Your task to perform on an android device: change notifications settings Image 0: 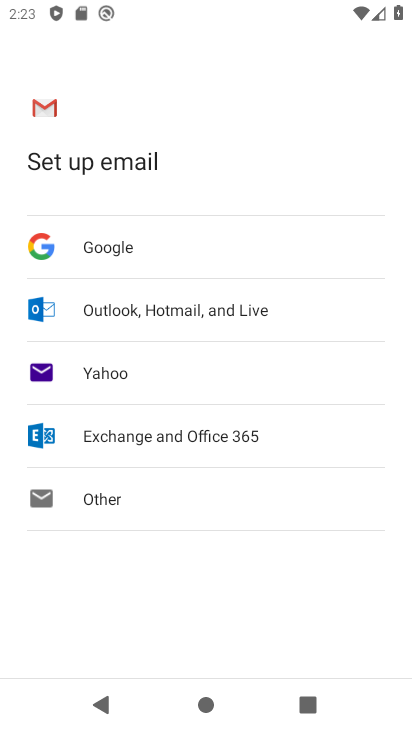
Step 0: press home button
Your task to perform on an android device: change notifications settings Image 1: 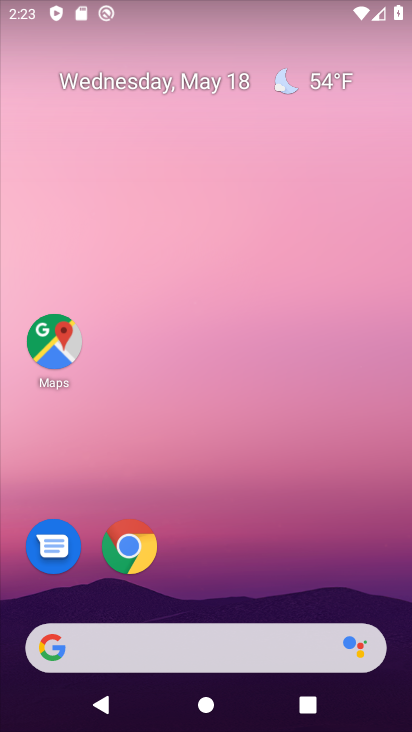
Step 1: drag from (347, 568) to (277, 41)
Your task to perform on an android device: change notifications settings Image 2: 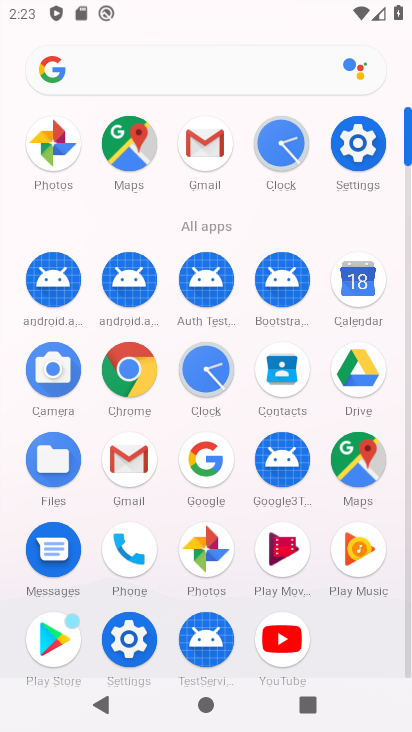
Step 2: click (347, 183)
Your task to perform on an android device: change notifications settings Image 3: 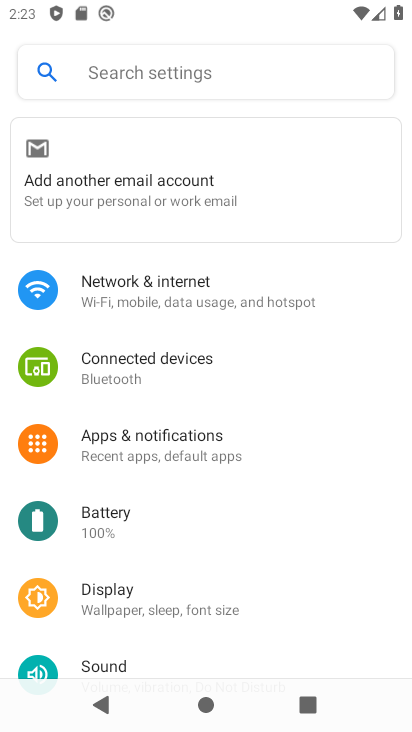
Step 3: click (152, 436)
Your task to perform on an android device: change notifications settings Image 4: 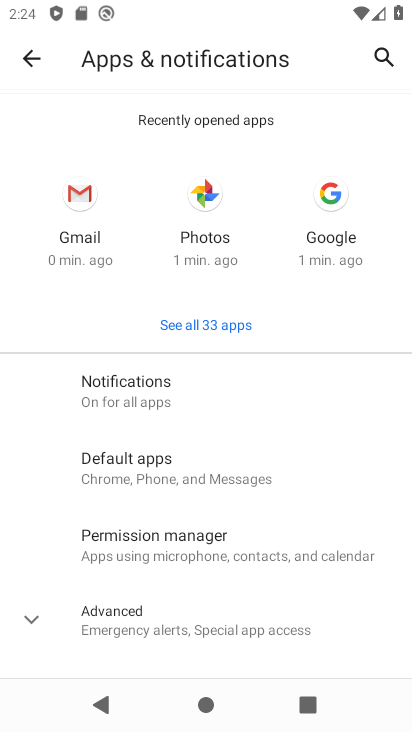
Step 4: click (156, 392)
Your task to perform on an android device: change notifications settings Image 5: 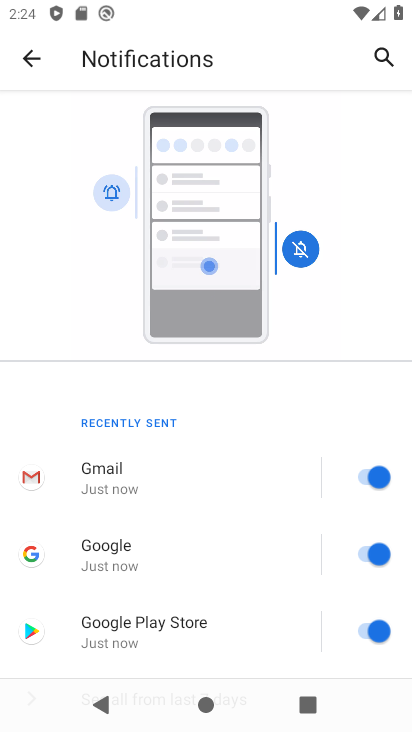
Step 5: drag from (188, 630) to (170, 100)
Your task to perform on an android device: change notifications settings Image 6: 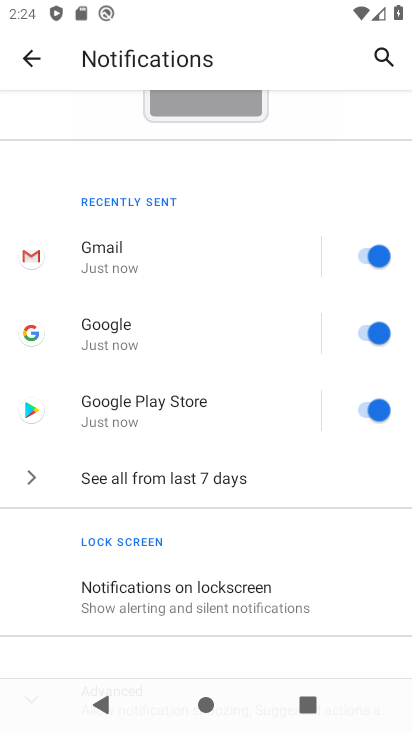
Step 6: click (211, 608)
Your task to perform on an android device: change notifications settings Image 7: 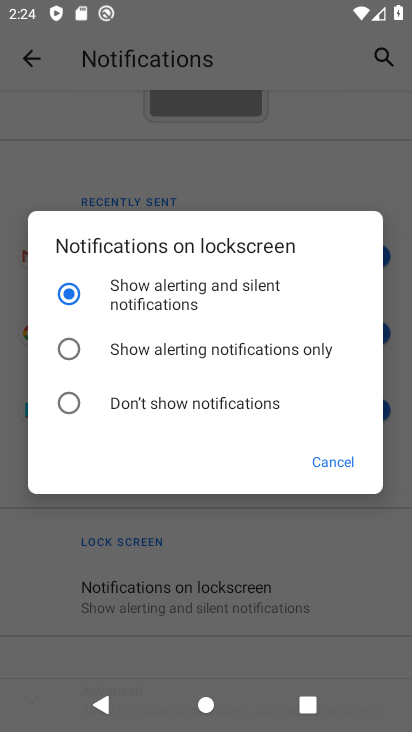
Step 7: click (240, 565)
Your task to perform on an android device: change notifications settings Image 8: 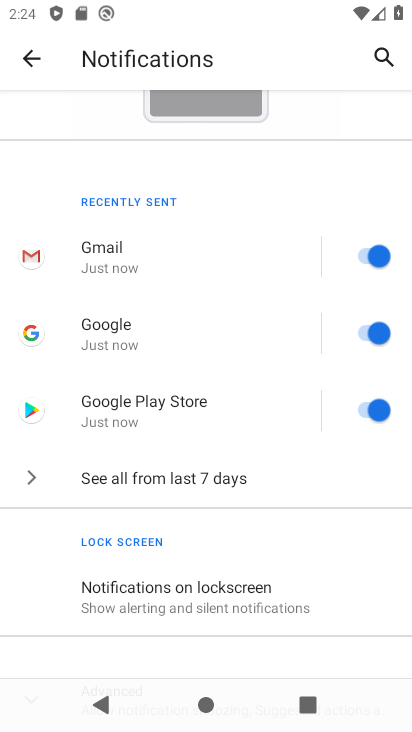
Step 8: drag from (240, 565) to (214, 233)
Your task to perform on an android device: change notifications settings Image 9: 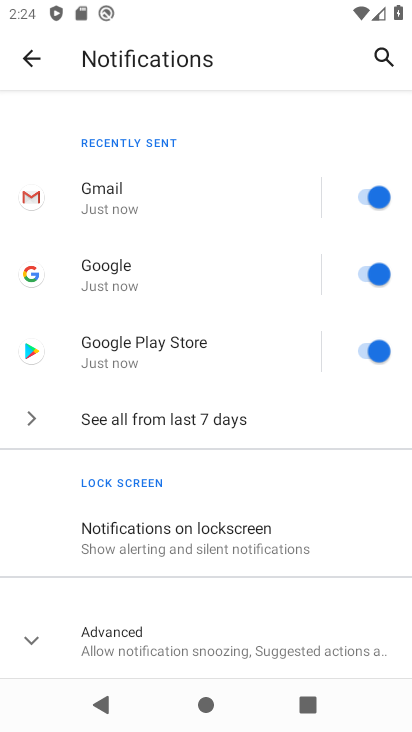
Step 9: click (143, 639)
Your task to perform on an android device: change notifications settings Image 10: 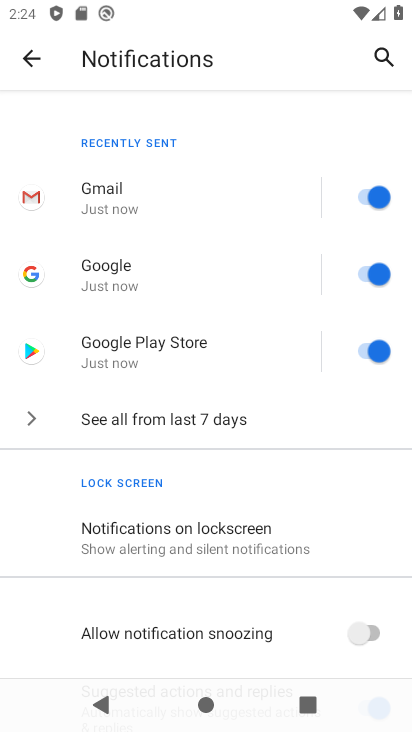
Step 10: click (365, 635)
Your task to perform on an android device: change notifications settings Image 11: 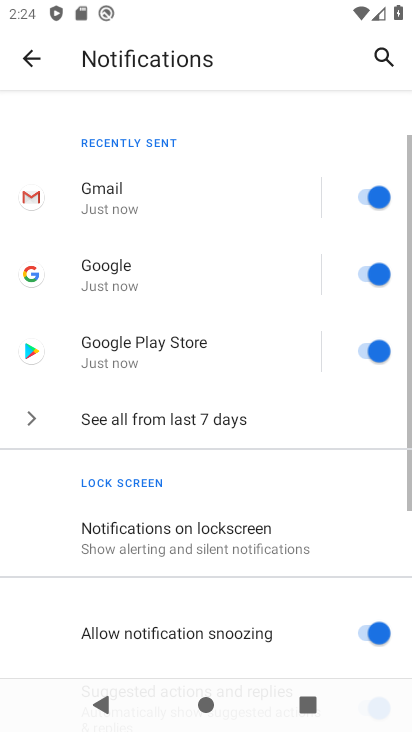
Step 11: drag from (281, 624) to (279, 263)
Your task to perform on an android device: change notifications settings Image 12: 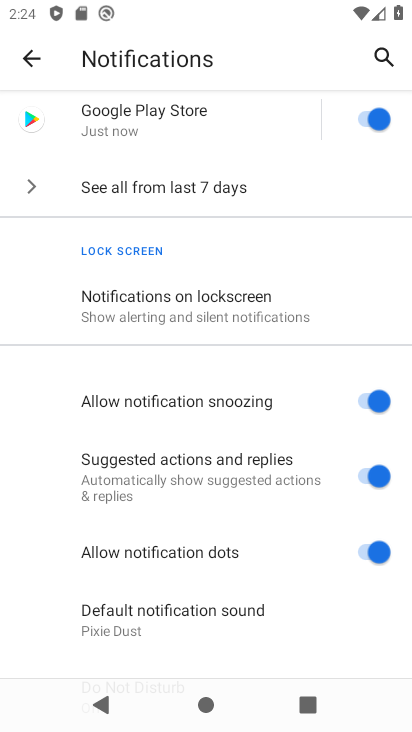
Step 12: click (327, 471)
Your task to perform on an android device: change notifications settings Image 13: 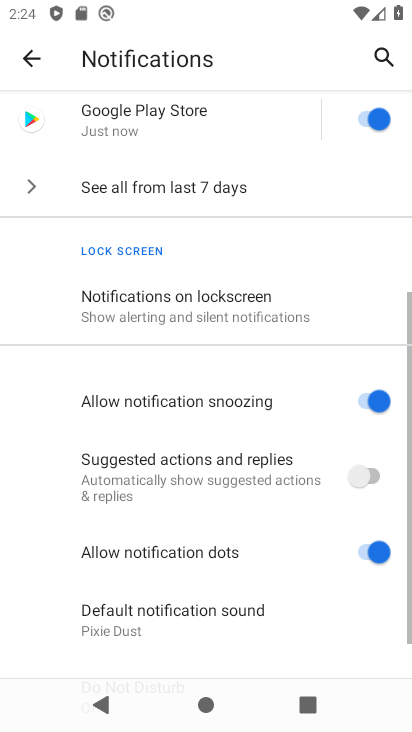
Step 13: click (366, 549)
Your task to perform on an android device: change notifications settings Image 14: 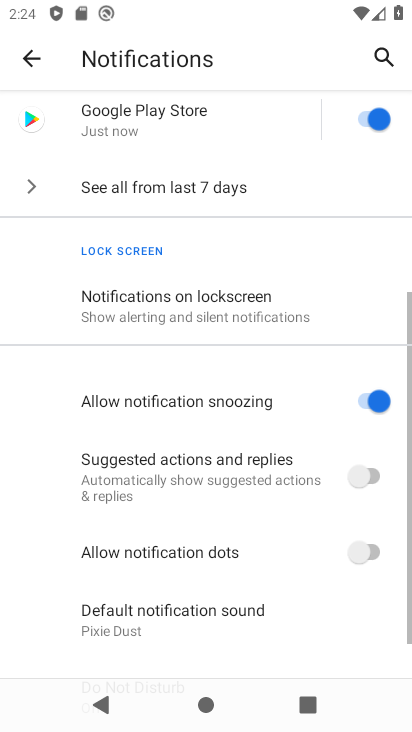
Step 14: task complete